Your task to perform on an android device: turn off location Image 0: 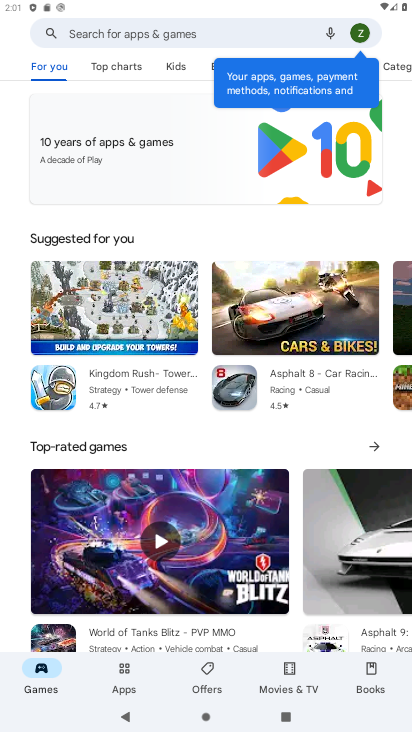
Step 0: press home button
Your task to perform on an android device: turn off location Image 1: 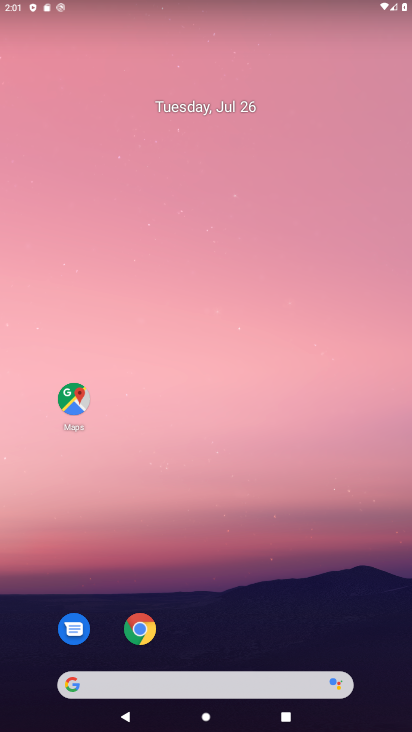
Step 1: drag from (260, 584) to (138, 1)
Your task to perform on an android device: turn off location Image 2: 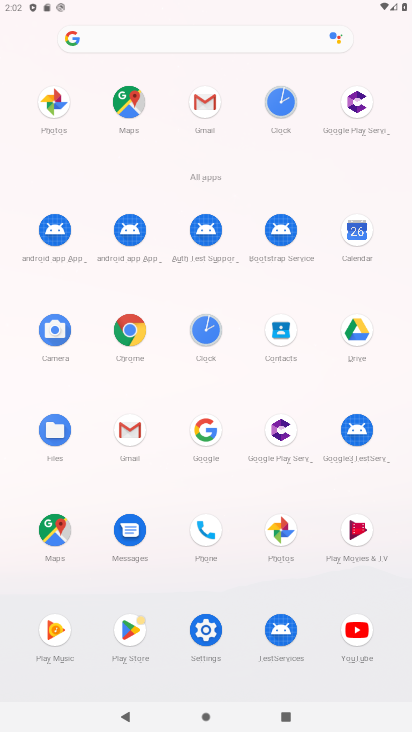
Step 2: click (204, 621)
Your task to perform on an android device: turn off location Image 3: 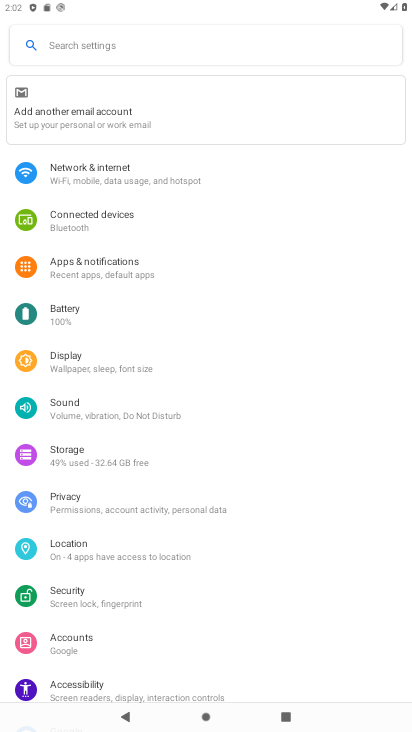
Step 3: click (142, 558)
Your task to perform on an android device: turn off location Image 4: 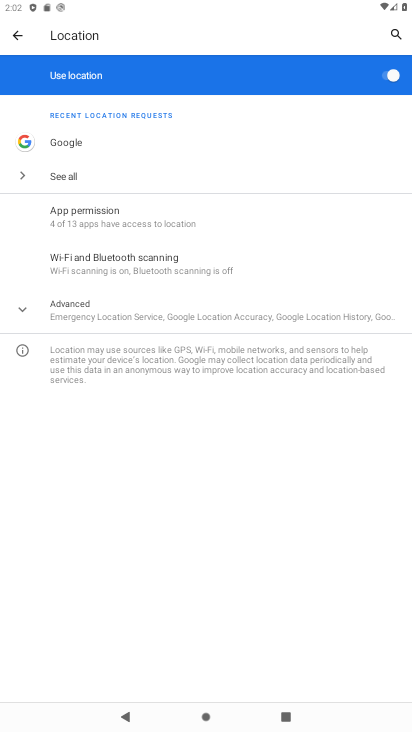
Step 4: click (387, 79)
Your task to perform on an android device: turn off location Image 5: 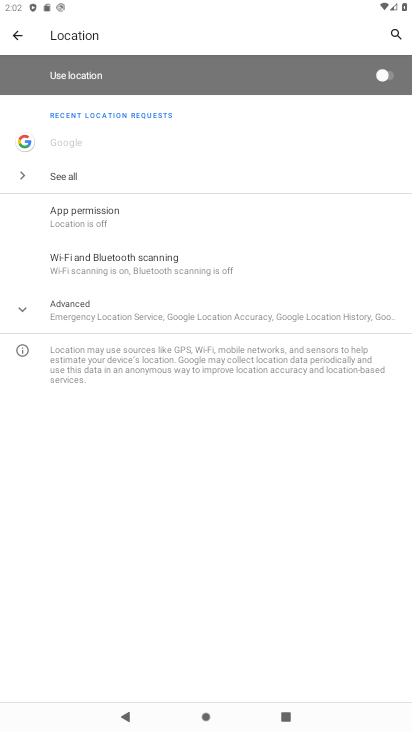
Step 5: task complete